Your task to perform on an android device: Do I have any events this weekend? Image 0: 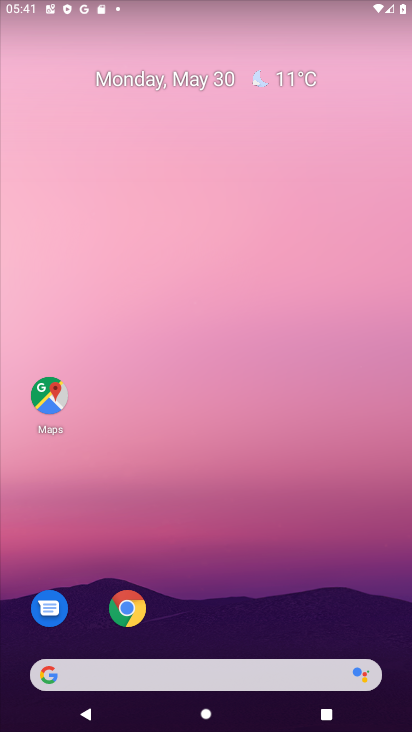
Step 0: drag from (166, 650) to (194, 272)
Your task to perform on an android device: Do I have any events this weekend? Image 1: 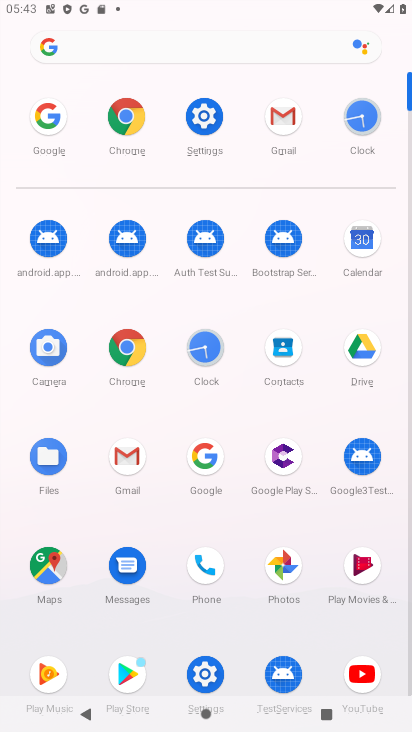
Step 1: task complete